Your task to perform on an android device: see creations saved in the google photos Image 0: 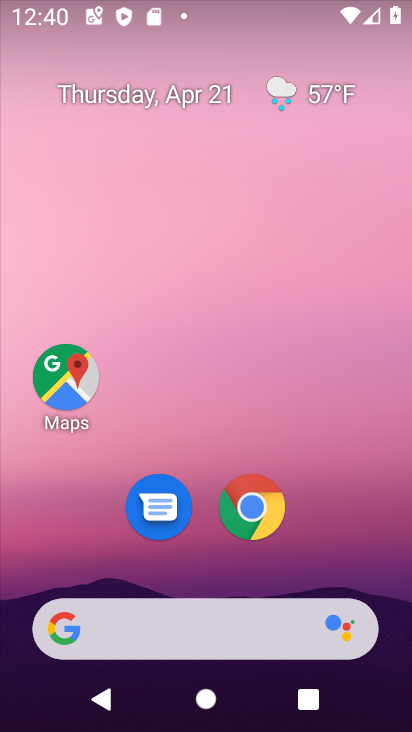
Step 0: drag from (405, 477) to (269, 41)
Your task to perform on an android device: see creations saved in the google photos Image 1: 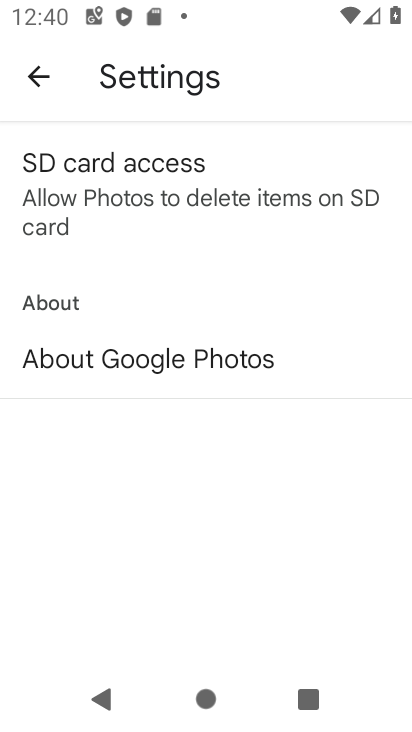
Step 1: press home button
Your task to perform on an android device: see creations saved in the google photos Image 2: 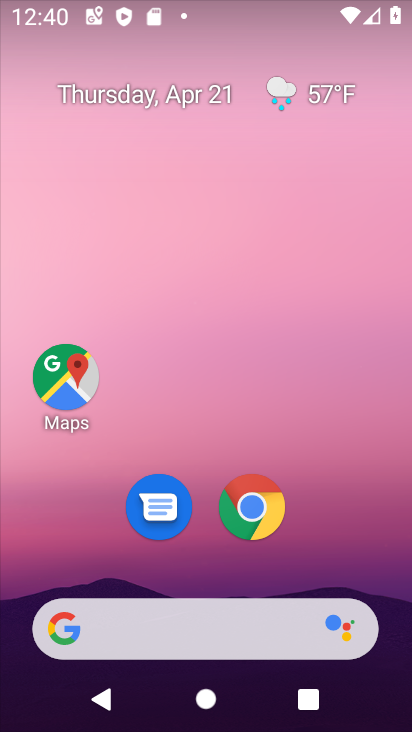
Step 2: drag from (192, 578) to (362, 1)
Your task to perform on an android device: see creations saved in the google photos Image 3: 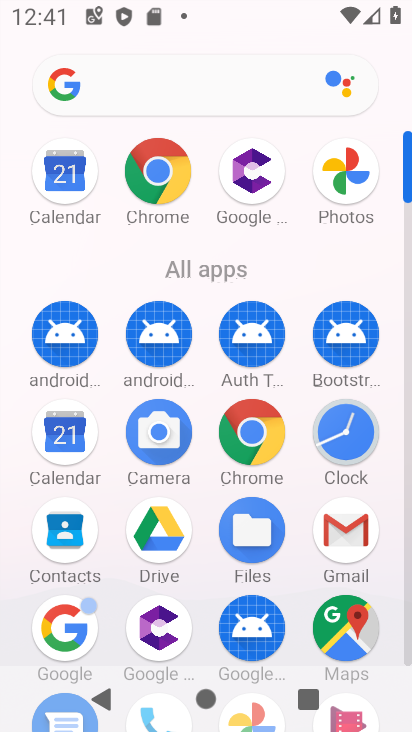
Step 3: drag from (199, 599) to (257, 57)
Your task to perform on an android device: see creations saved in the google photos Image 4: 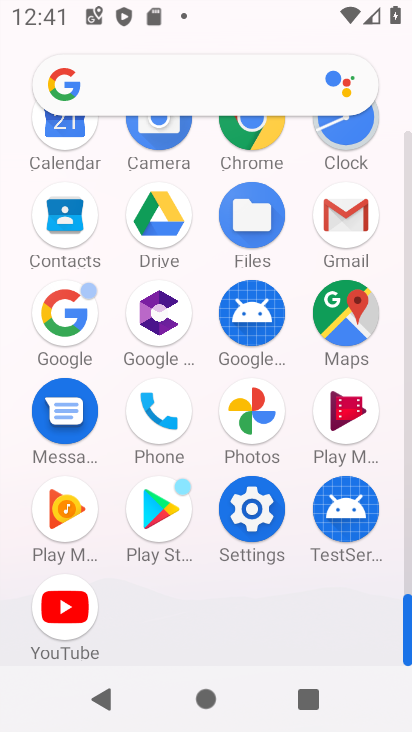
Step 4: click (237, 417)
Your task to perform on an android device: see creations saved in the google photos Image 5: 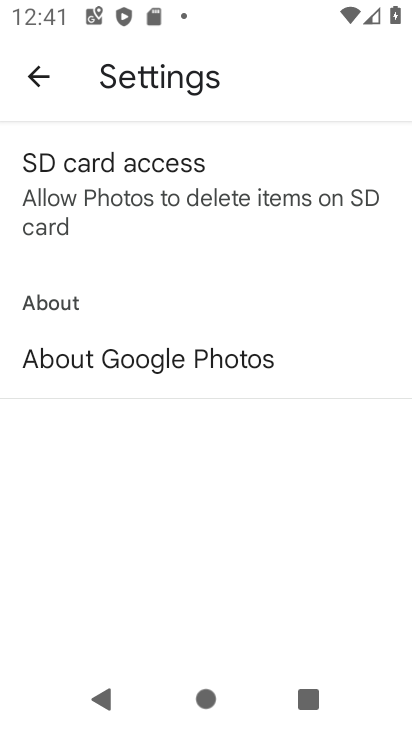
Step 5: click (32, 68)
Your task to perform on an android device: see creations saved in the google photos Image 6: 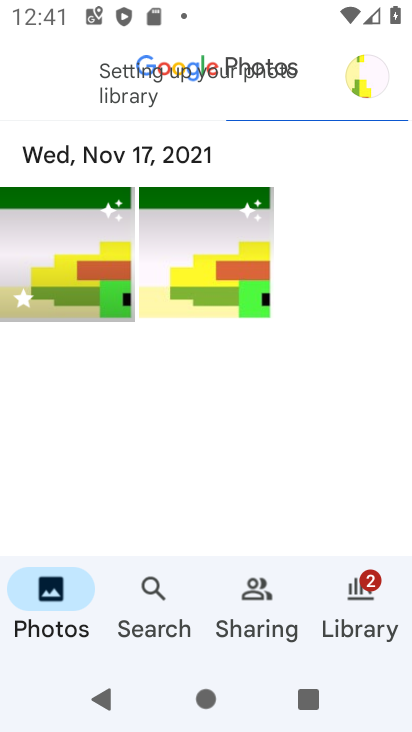
Step 6: click (147, 587)
Your task to perform on an android device: see creations saved in the google photos Image 7: 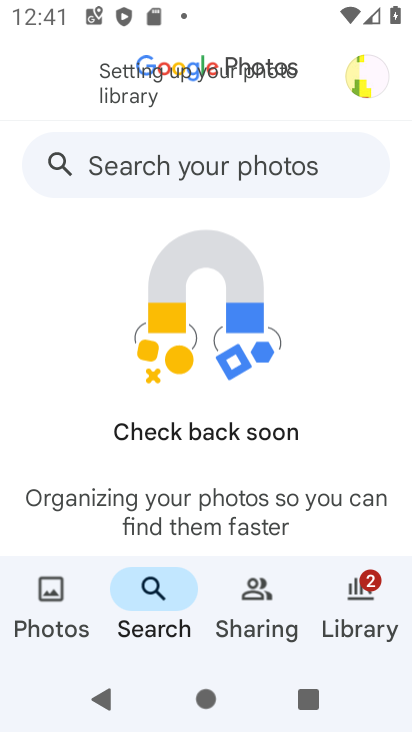
Step 7: click (186, 189)
Your task to perform on an android device: see creations saved in the google photos Image 8: 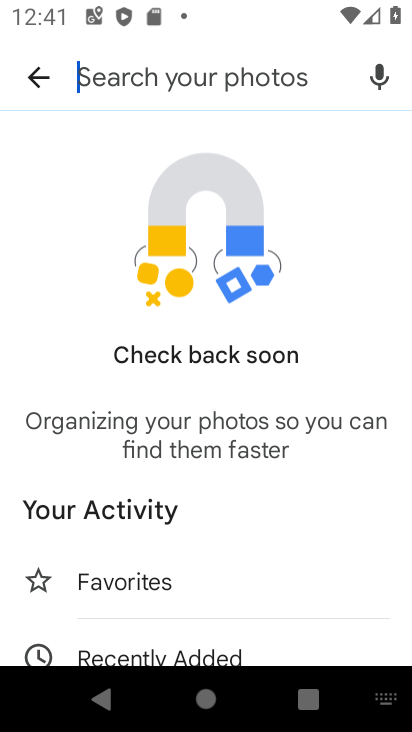
Step 8: drag from (174, 515) to (209, 2)
Your task to perform on an android device: see creations saved in the google photos Image 9: 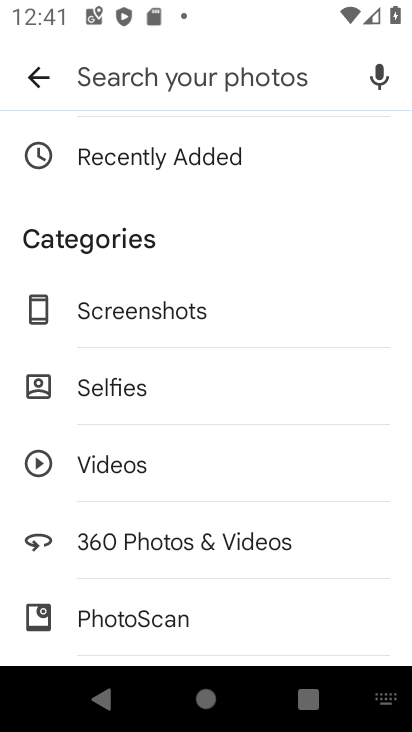
Step 9: drag from (187, 489) to (252, 113)
Your task to perform on an android device: see creations saved in the google photos Image 10: 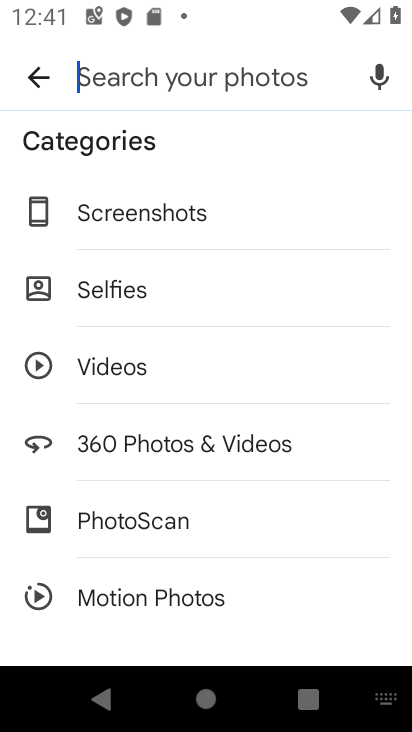
Step 10: drag from (174, 564) to (294, 70)
Your task to perform on an android device: see creations saved in the google photos Image 11: 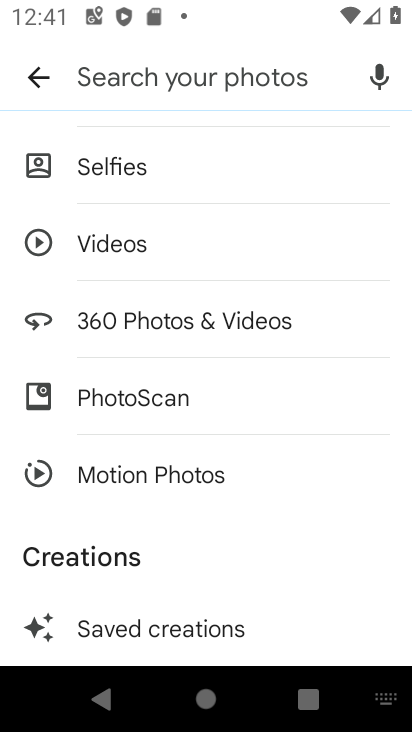
Step 11: drag from (154, 573) to (224, 142)
Your task to perform on an android device: see creations saved in the google photos Image 12: 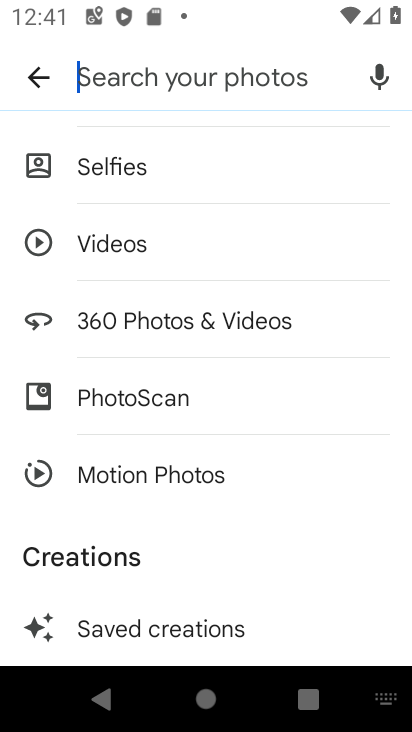
Step 12: click (159, 629)
Your task to perform on an android device: see creations saved in the google photos Image 13: 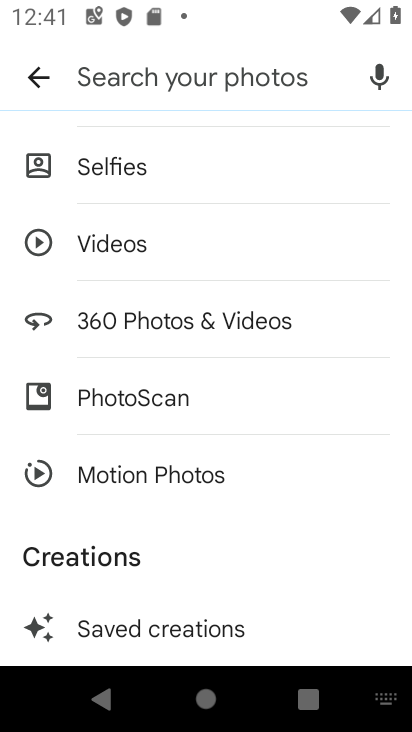
Step 13: drag from (187, 566) to (269, 100)
Your task to perform on an android device: see creations saved in the google photos Image 14: 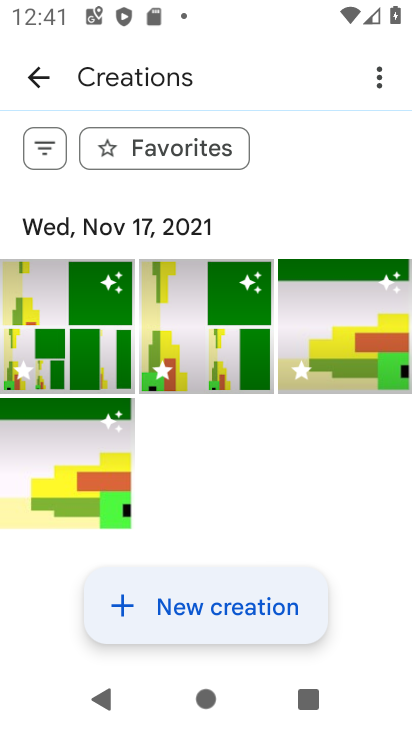
Step 14: drag from (257, 510) to (306, 84)
Your task to perform on an android device: see creations saved in the google photos Image 15: 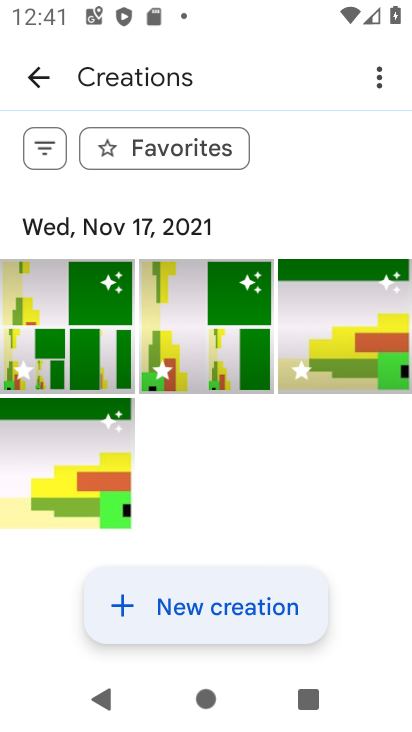
Step 15: click (249, 333)
Your task to perform on an android device: see creations saved in the google photos Image 16: 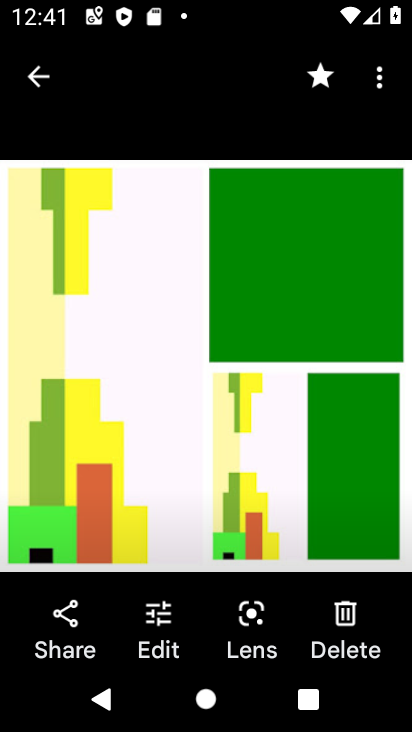
Step 16: task complete